Your task to perform on an android device: choose inbox layout in the gmail app Image 0: 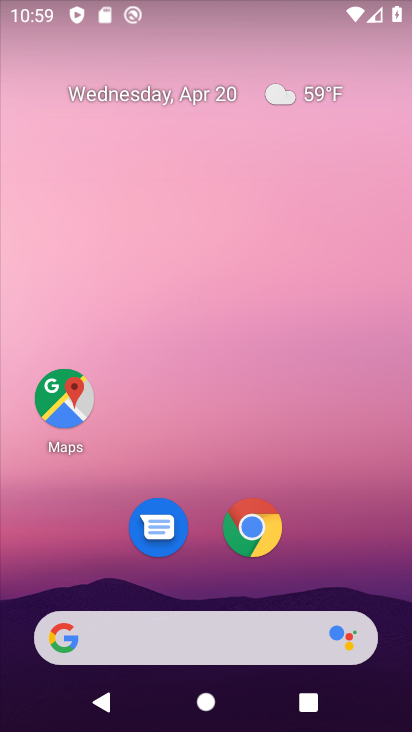
Step 0: drag from (198, 600) to (250, 303)
Your task to perform on an android device: choose inbox layout in the gmail app Image 1: 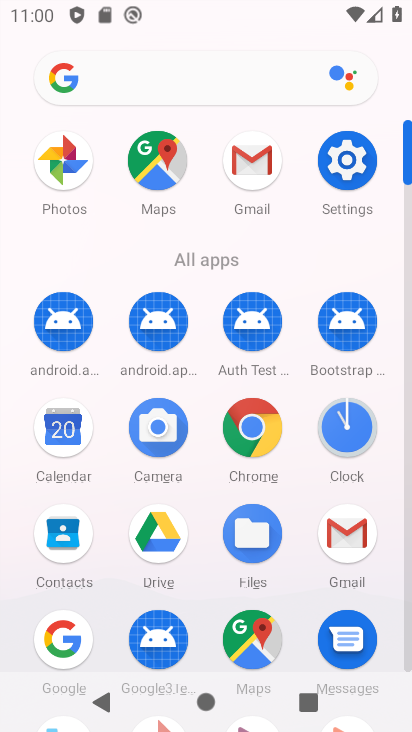
Step 1: click (258, 144)
Your task to perform on an android device: choose inbox layout in the gmail app Image 2: 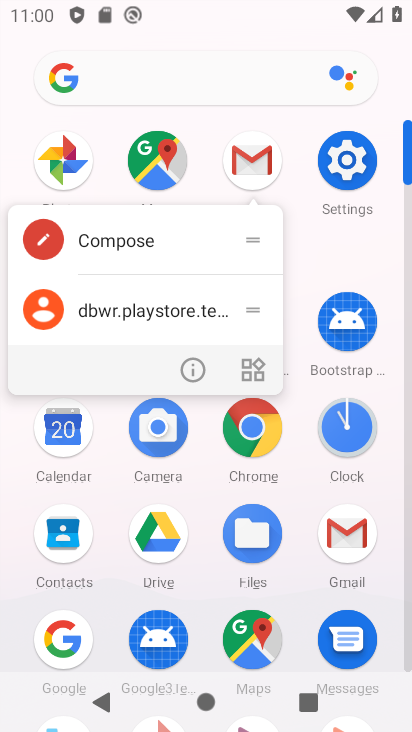
Step 2: click (248, 161)
Your task to perform on an android device: choose inbox layout in the gmail app Image 3: 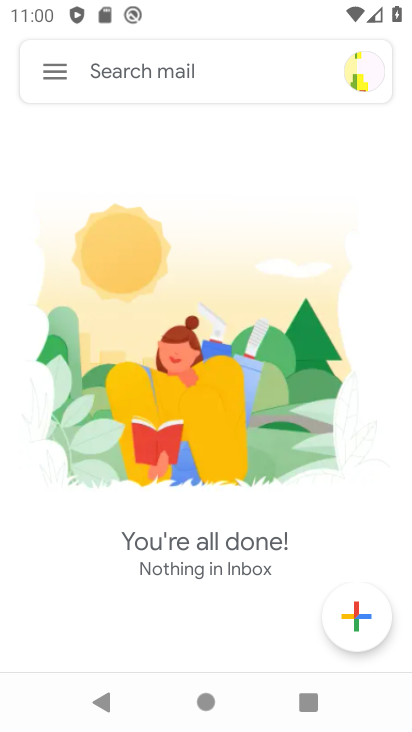
Step 3: click (63, 64)
Your task to perform on an android device: choose inbox layout in the gmail app Image 4: 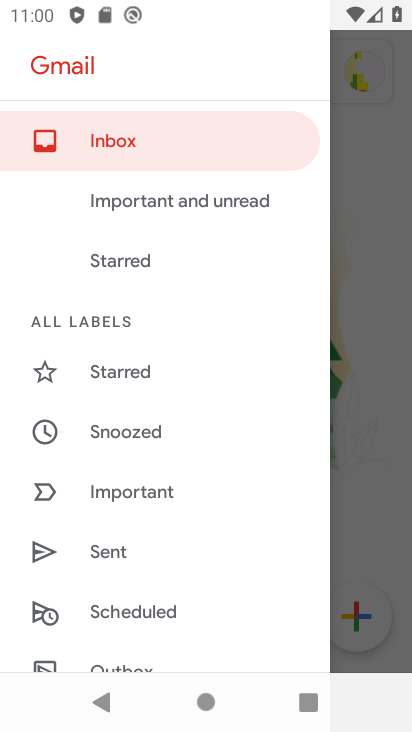
Step 4: drag from (105, 573) to (125, 233)
Your task to perform on an android device: choose inbox layout in the gmail app Image 5: 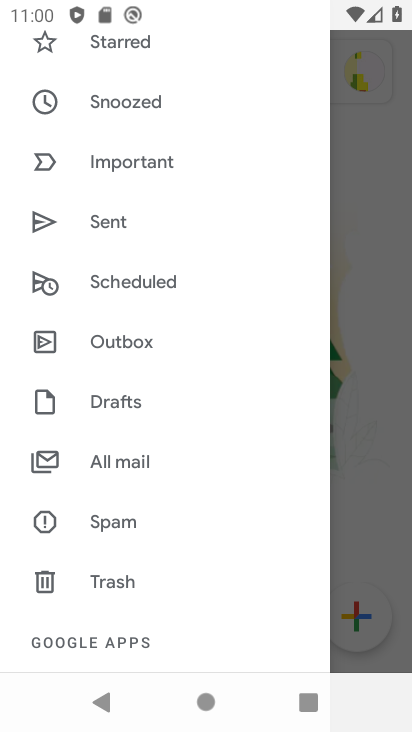
Step 5: drag from (103, 657) to (154, 280)
Your task to perform on an android device: choose inbox layout in the gmail app Image 6: 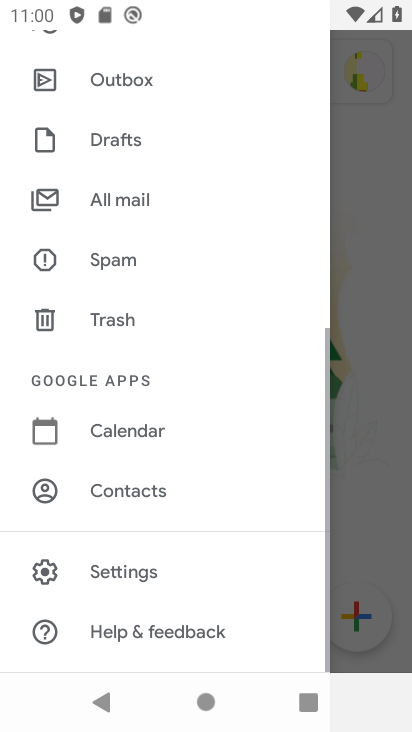
Step 6: click (143, 566)
Your task to perform on an android device: choose inbox layout in the gmail app Image 7: 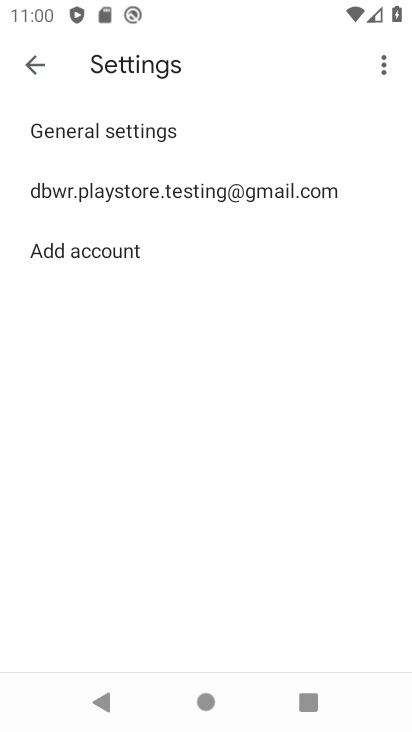
Step 7: click (122, 191)
Your task to perform on an android device: choose inbox layout in the gmail app Image 8: 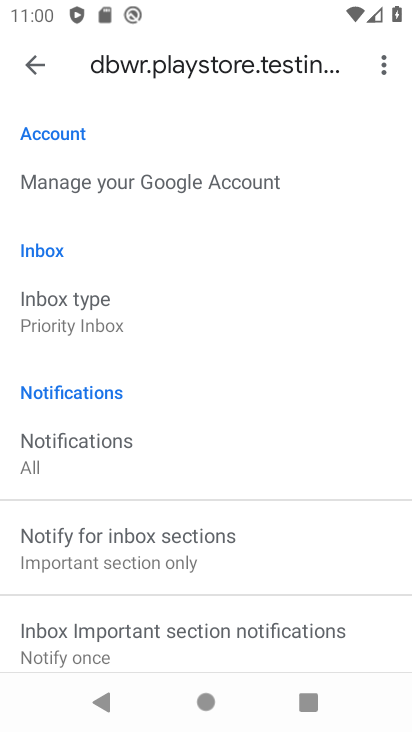
Step 8: click (82, 316)
Your task to perform on an android device: choose inbox layout in the gmail app Image 9: 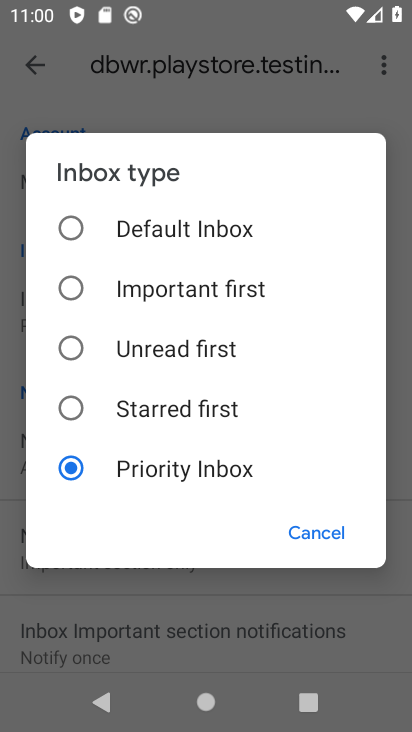
Step 9: click (70, 285)
Your task to perform on an android device: choose inbox layout in the gmail app Image 10: 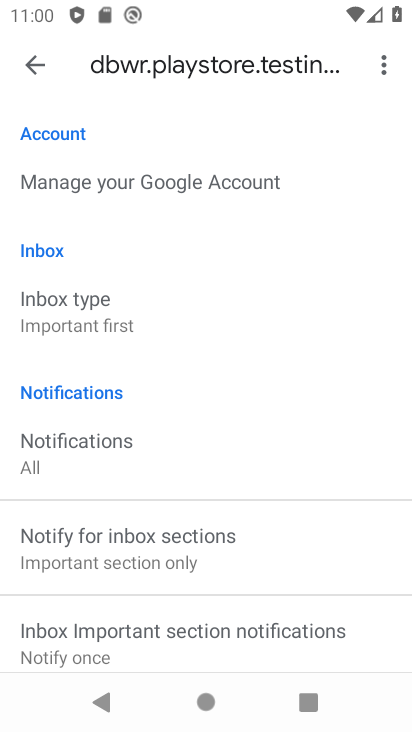
Step 10: task complete